Your task to perform on an android device: Open Reddit.com Image 0: 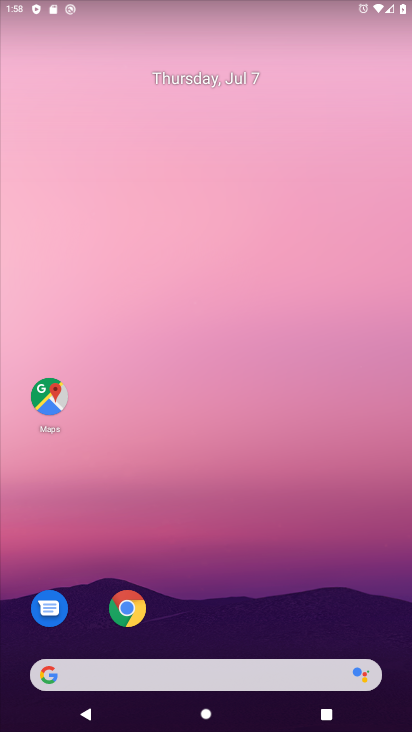
Step 0: click (125, 607)
Your task to perform on an android device: Open Reddit.com Image 1: 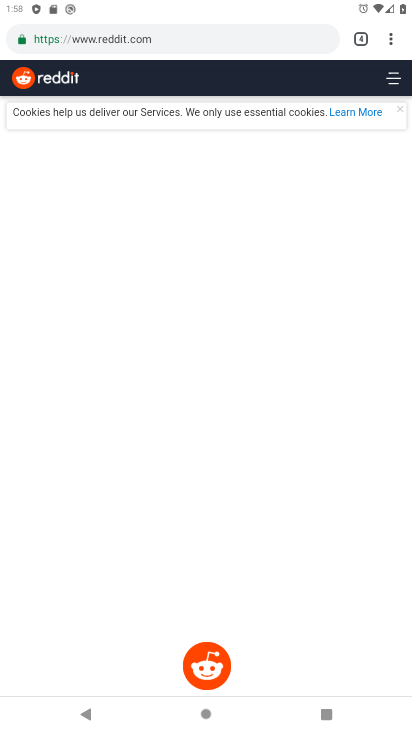
Step 1: task complete